Your task to perform on an android device: See recent photos Image 0: 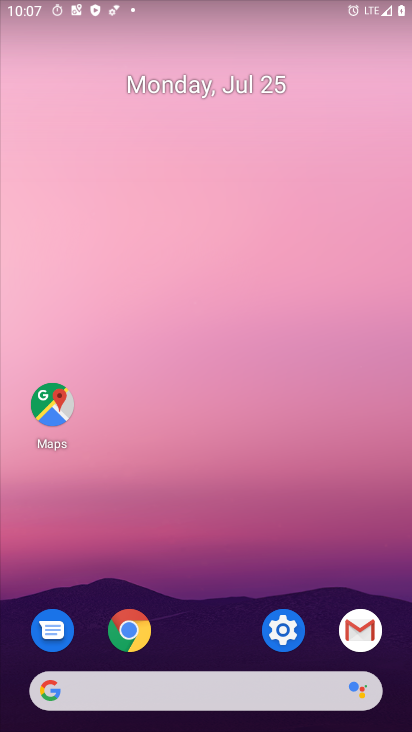
Step 0: drag from (281, 698) to (299, 12)
Your task to perform on an android device: See recent photos Image 1: 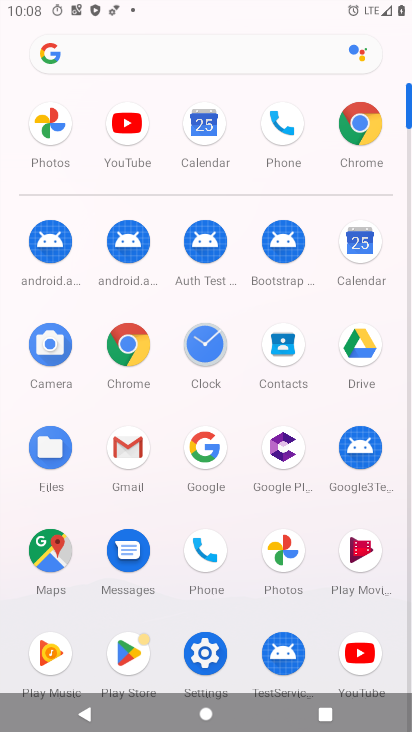
Step 1: click (285, 554)
Your task to perform on an android device: See recent photos Image 2: 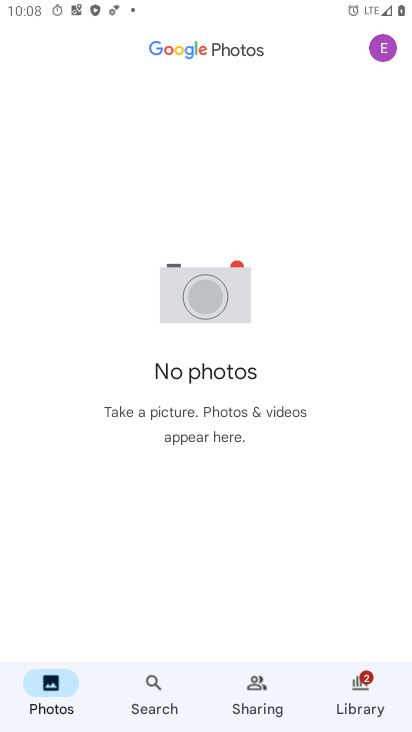
Step 2: task complete